Your task to perform on an android device: Open Google Maps and go to "Timeline" Image 0: 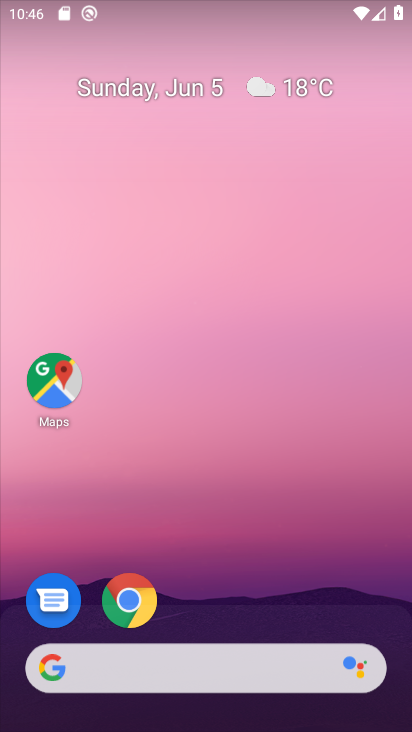
Step 0: press home button
Your task to perform on an android device: Open Google Maps and go to "Timeline" Image 1: 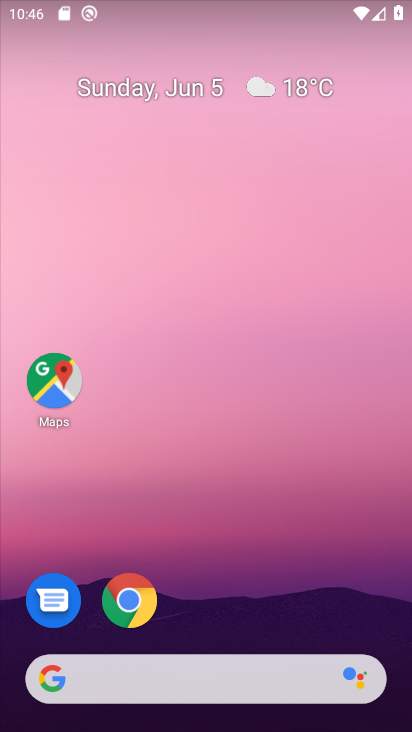
Step 1: drag from (324, 473) to (298, 144)
Your task to perform on an android device: Open Google Maps and go to "Timeline" Image 2: 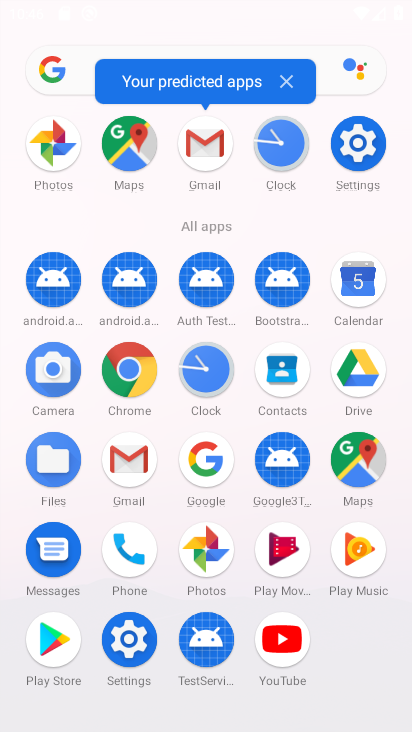
Step 2: click (356, 458)
Your task to perform on an android device: Open Google Maps and go to "Timeline" Image 3: 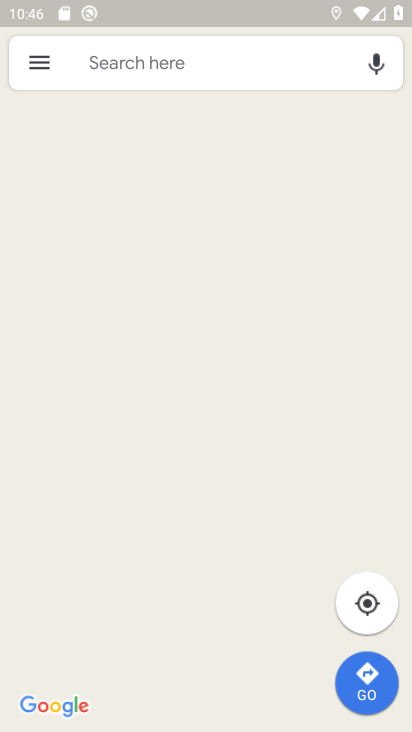
Step 3: click (27, 64)
Your task to perform on an android device: Open Google Maps and go to "Timeline" Image 4: 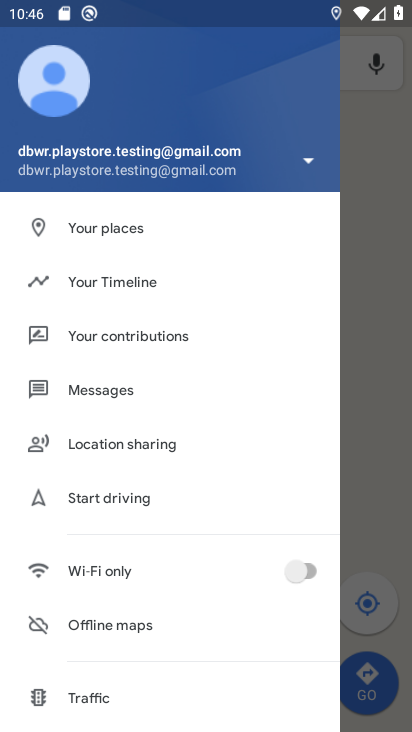
Step 4: click (93, 288)
Your task to perform on an android device: Open Google Maps and go to "Timeline" Image 5: 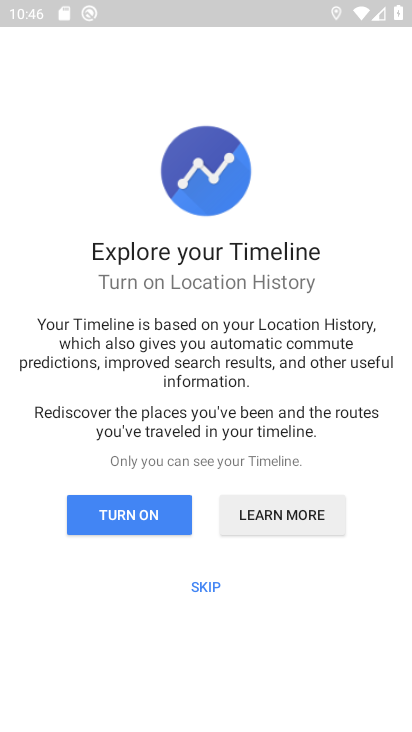
Step 5: click (215, 584)
Your task to perform on an android device: Open Google Maps and go to "Timeline" Image 6: 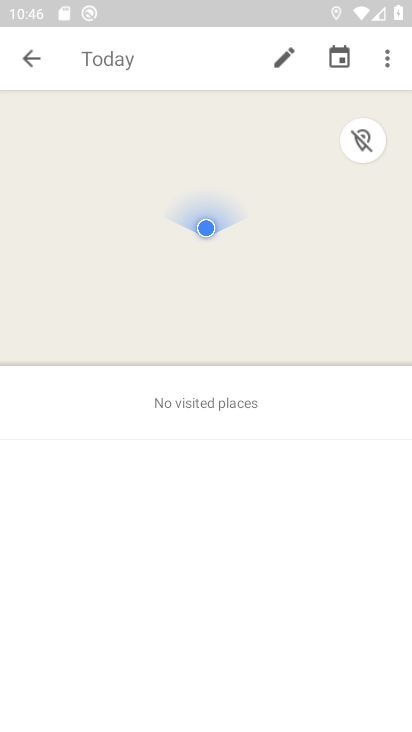
Step 6: task complete